Your task to perform on an android device: Open privacy settings Image 0: 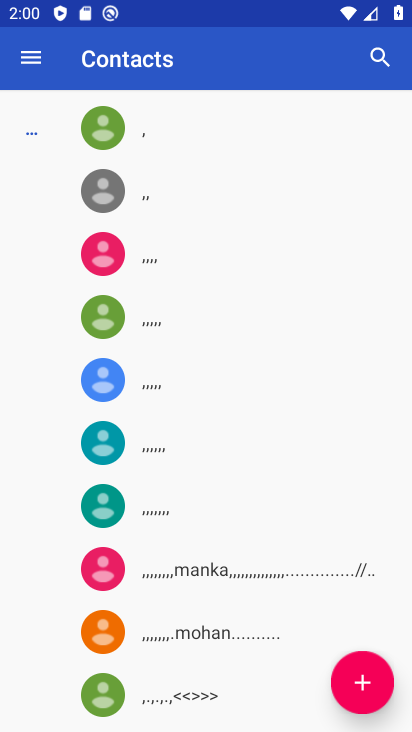
Step 0: press home button
Your task to perform on an android device: Open privacy settings Image 1: 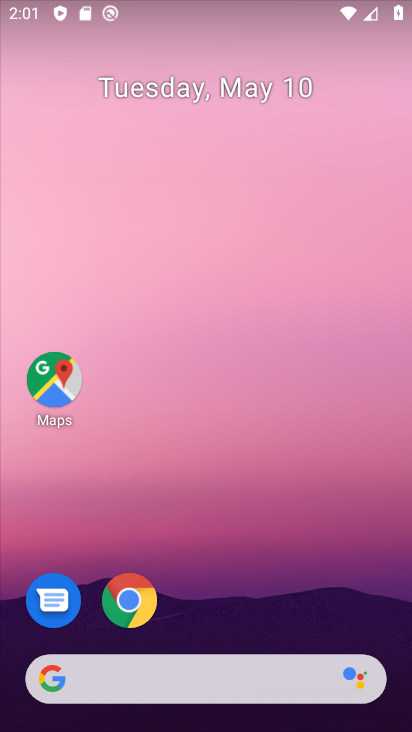
Step 1: drag from (218, 654) to (211, 312)
Your task to perform on an android device: Open privacy settings Image 2: 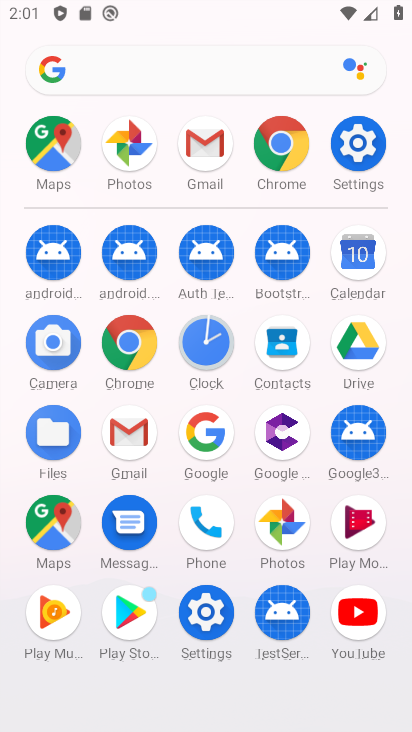
Step 2: click (357, 179)
Your task to perform on an android device: Open privacy settings Image 3: 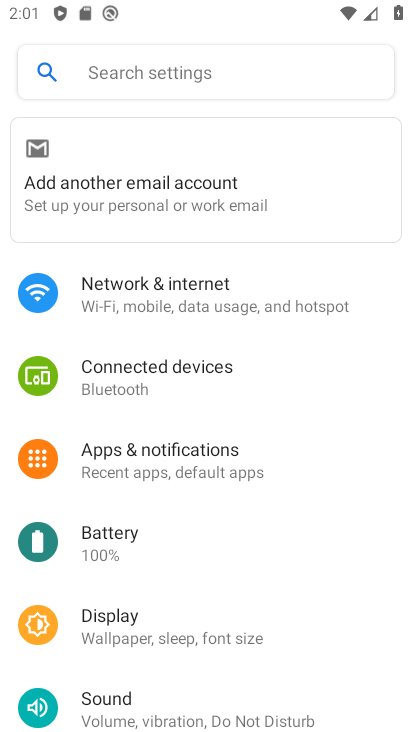
Step 3: drag from (235, 505) to (232, 282)
Your task to perform on an android device: Open privacy settings Image 4: 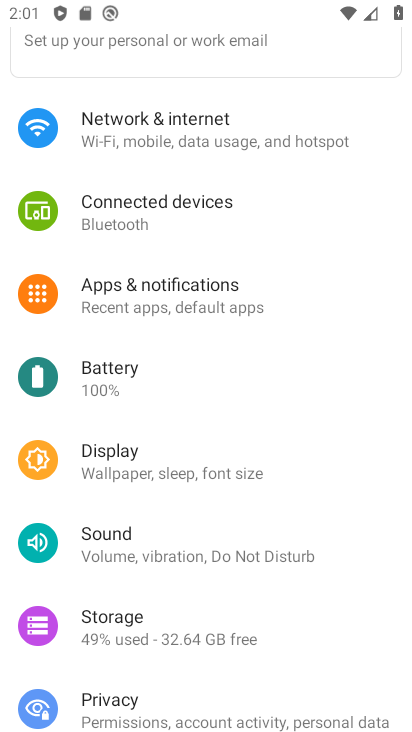
Step 4: drag from (224, 489) to (226, 350)
Your task to perform on an android device: Open privacy settings Image 5: 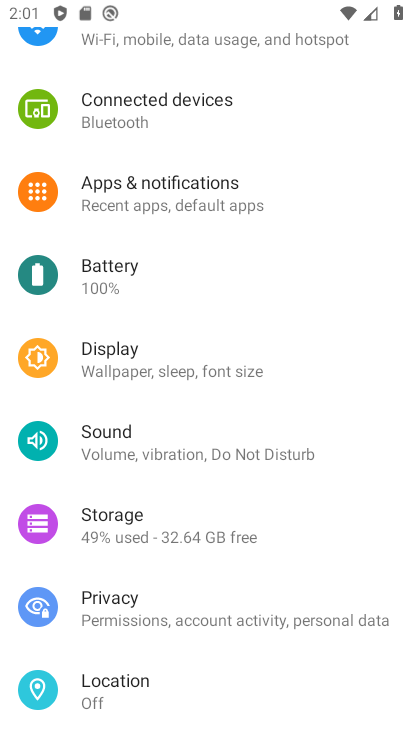
Step 5: click (163, 619)
Your task to perform on an android device: Open privacy settings Image 6: 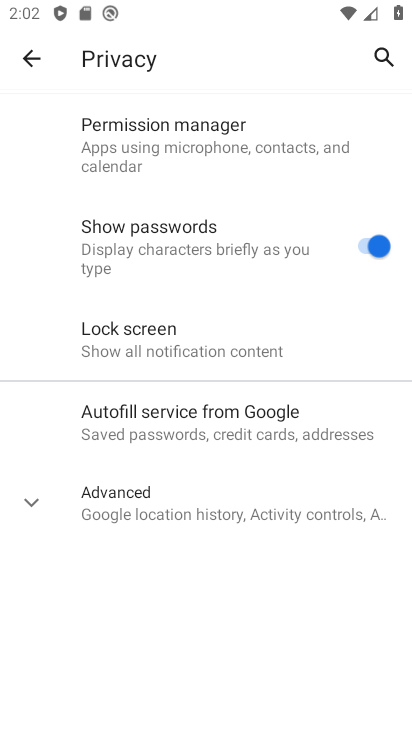
Step 6: task complete